Your task to perform on an android device: check google app version Image 0: 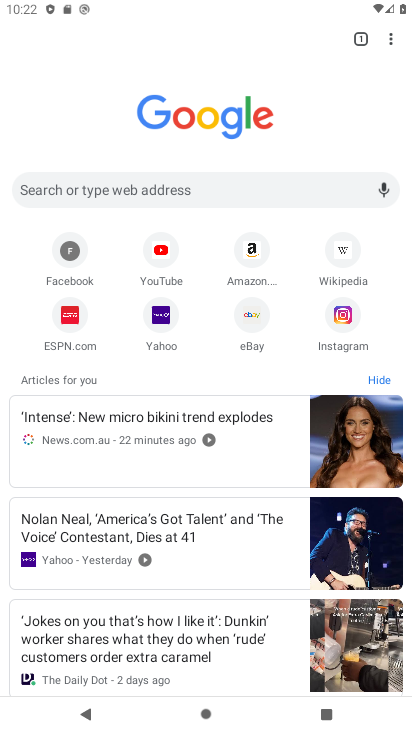
Step 0: press home button
Your task to perform on an android device: check google app version Image 1: 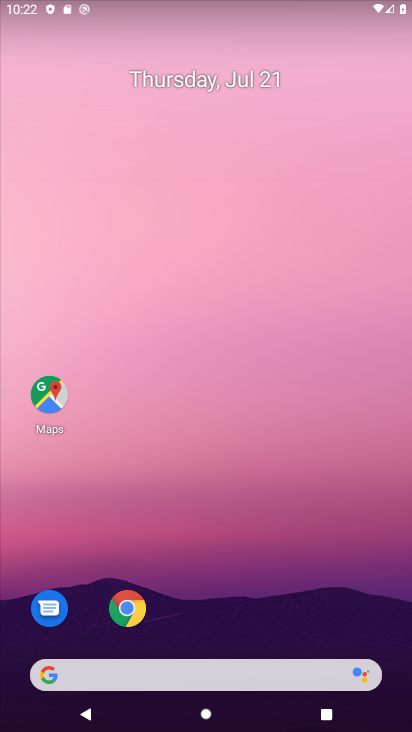
Step 1: click (49, 671)
Your task to perform on an android device: check google app version Image 2: 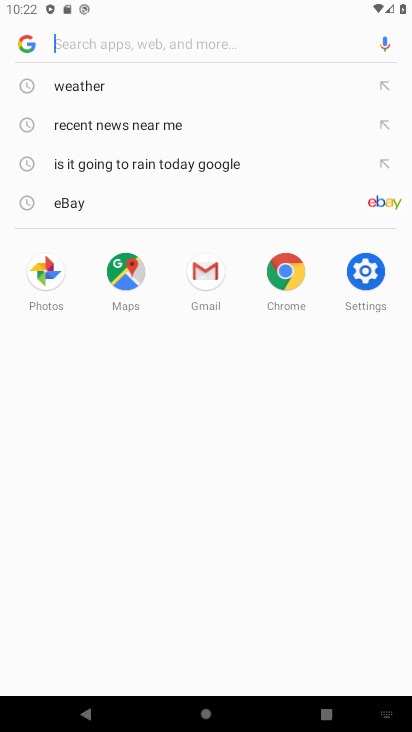
Step 2: click (29, 44)
Your task to perform on an android device: check google app version Image 3: 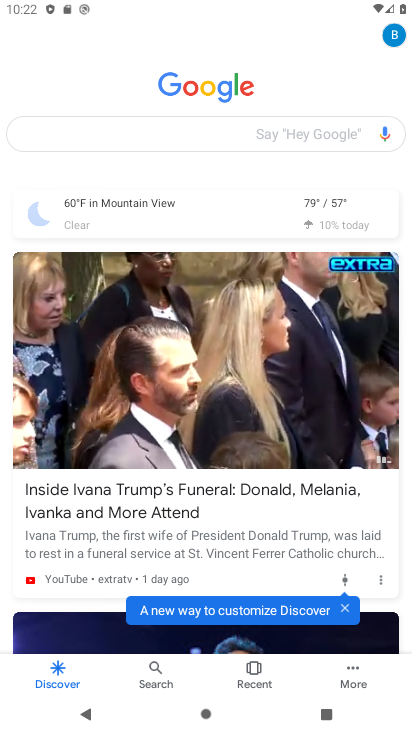
Step 3: click (357, 684)
Your task to perform on an android device: check google app version Image 4: 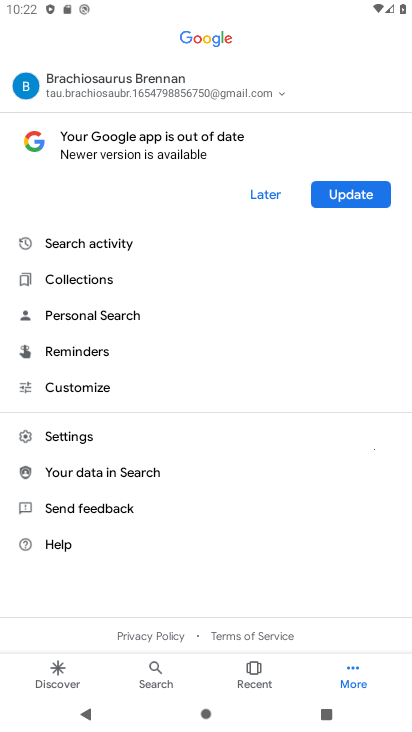
Step 4: click (351, 672)
Your task to perform on an android device: check google app version Image 5: 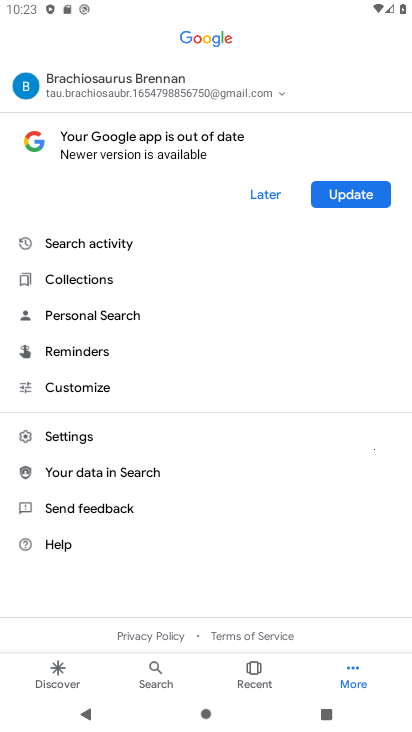
Step 5: click (83, 445)
Your task to perform on an android device: check google app version Image 6: 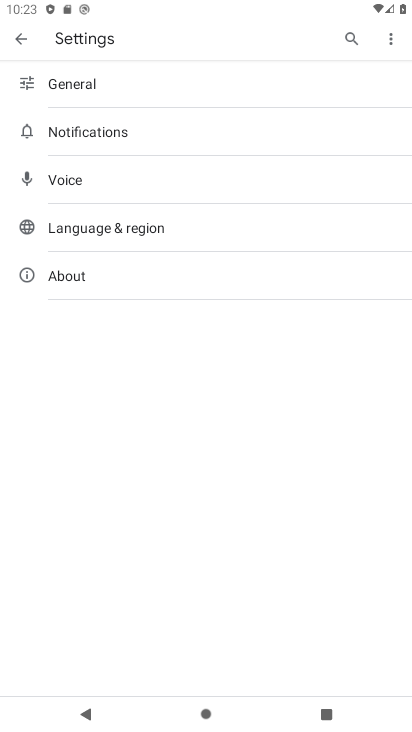
Step 6: click (59, 281)
Your task to perform on an android device: check google app version Image 7: 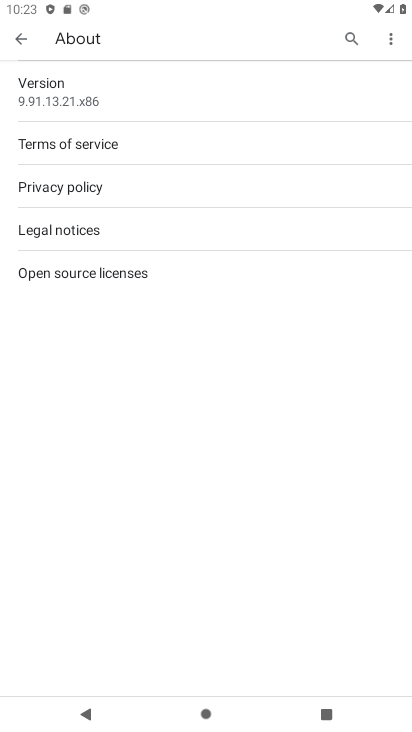
Step 7: task complete